Your task to perform on an android device: Check the weather Image 0: 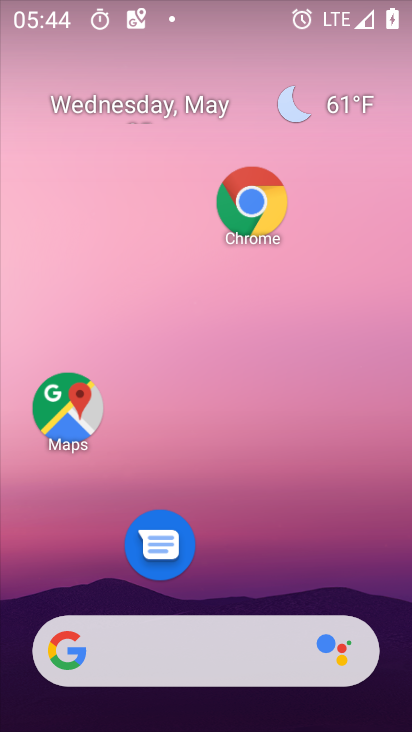
Step 0: drag from (235, 419) to (237, 363)
Your task to perform on an android device: Check the weather Image 1: 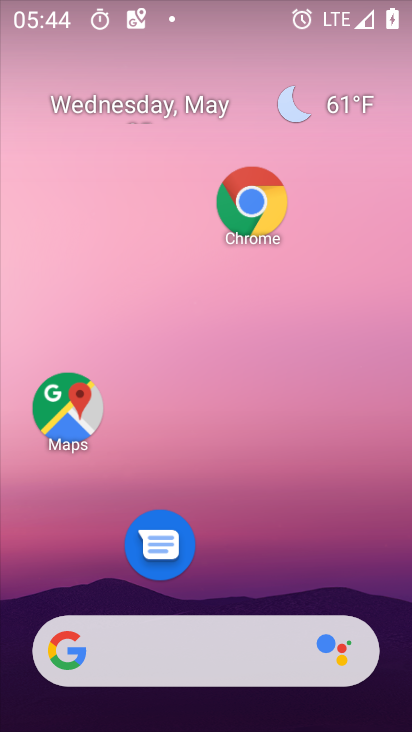
Step 1: drag from (246, 598) to (273, 242)
Your task to perform on an android device: Check the weather Image 2: 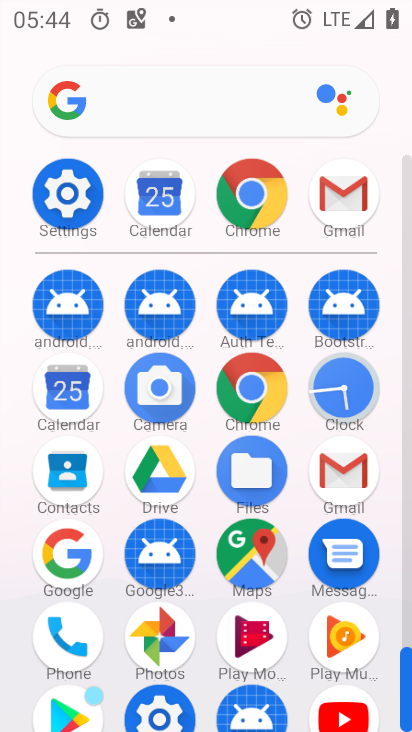
Step 2: click (60, 559)
Your task to perform on an android device: Check the weather Image 3: 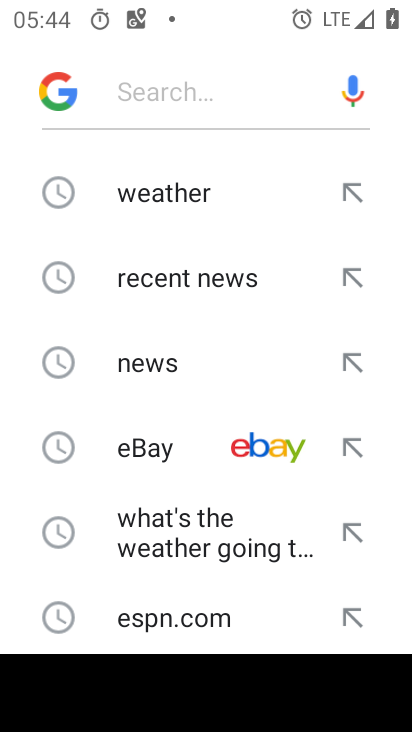
Step 3: click (171, 194)
Your task to perform on an android device: Check the weather Image 4: 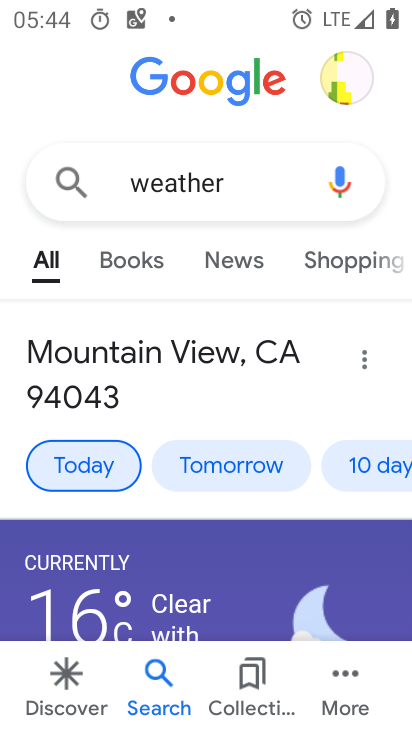
Step 4: task complete